Your task to perform on an android device: change the upload size in google photos Image 0: 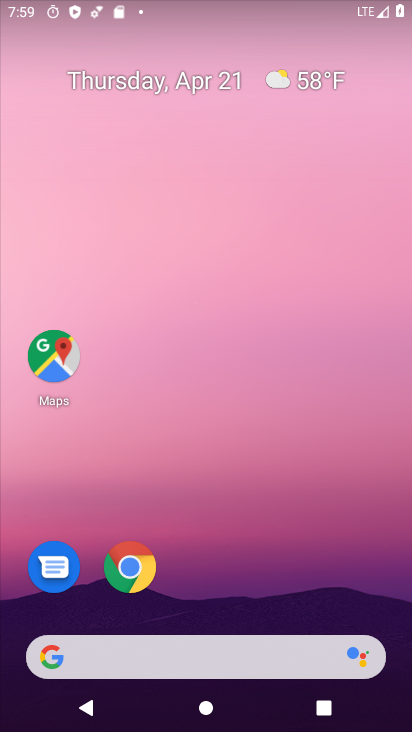
Step 0: drag from (228, 580) to (139, 0)
Your task to perform on an android device: change the upload size in google photos Image 1: 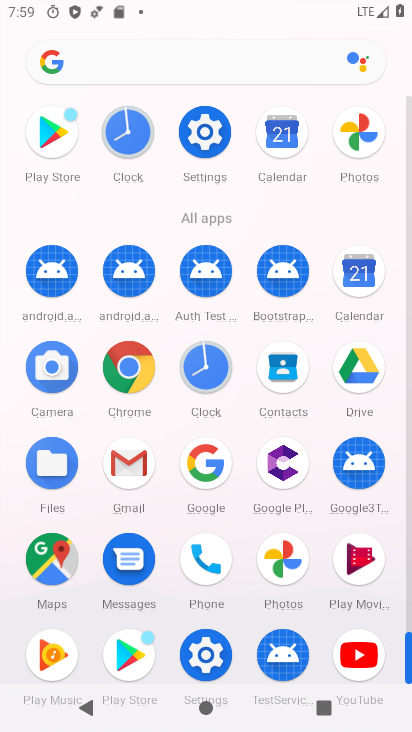
Step 1: click (359, 134)
Your task to perform on an android device: change the upload size in google photos Image 2: 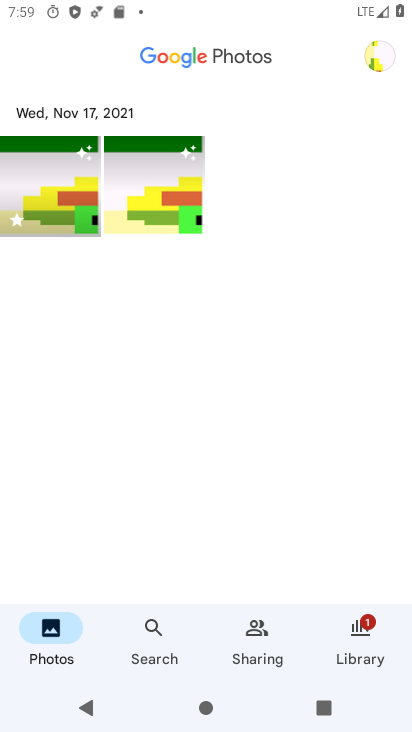
Step 2: click (378, 62)
Your task to perform on an android device: change the upload size in google photos Image 3: 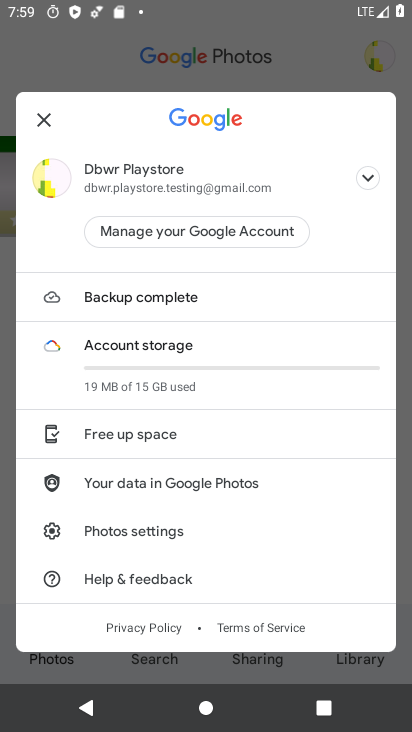
Step 3: click (163, 534)
Your task to perform on an android device: change the upload size in google photos Image 4: 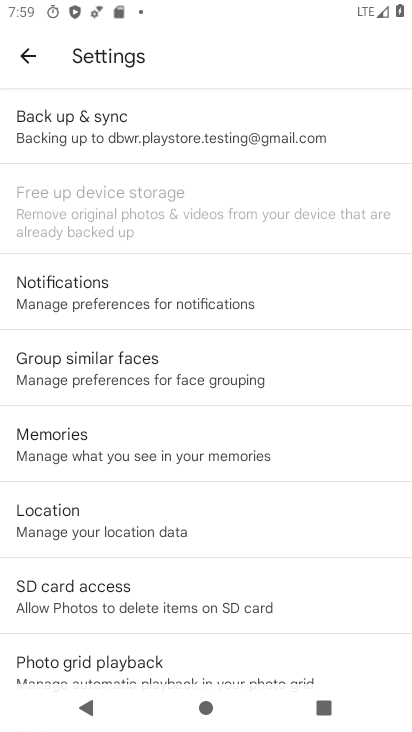
Step 4: click (112, 137)
Your task to perform on an android device: change the upload size in google photos Image 5: 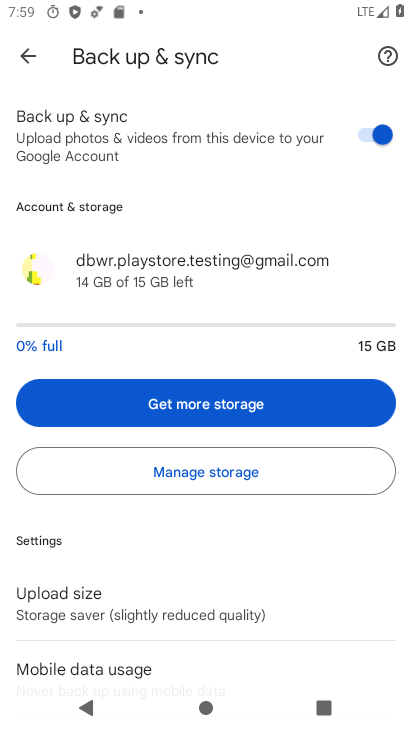
Step 5: click (89, 619)
Your task to perform on an android device: change the upload size in google photos Image 6: 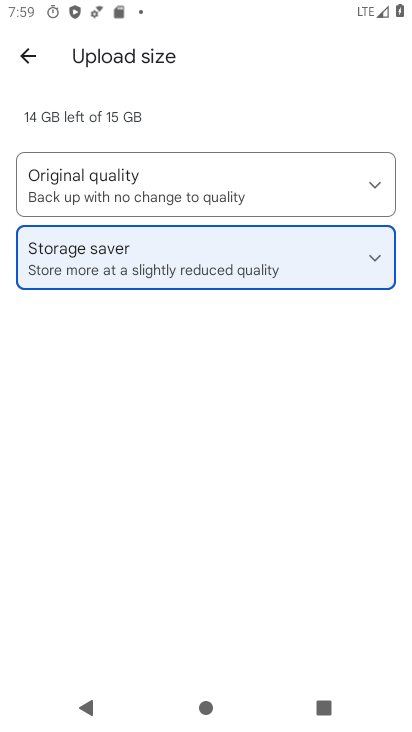
Step 6: click (233, 205)
Your task to perform on an android device: change the upload size in google photos Image 7: 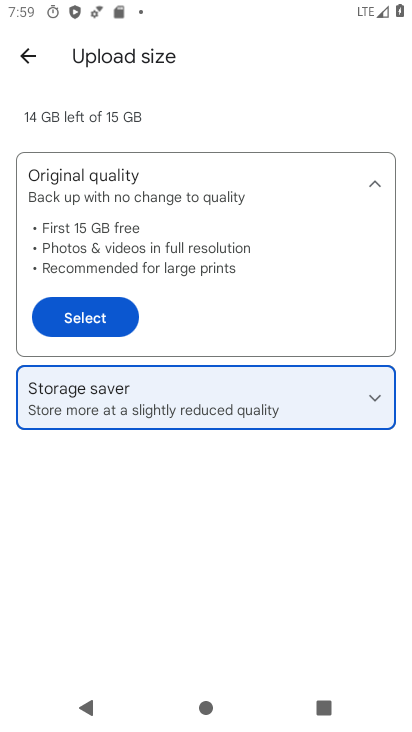
Step 7: click (104, 317)
Your task to perform on an android device: change the upload size in google photos Image 8: 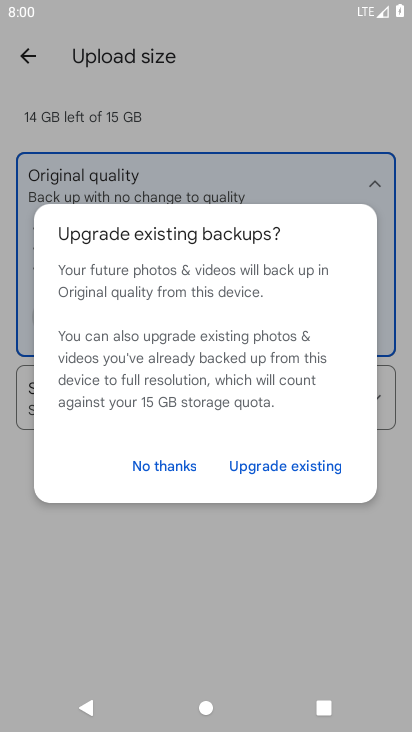
Step 8: click (179, 465)
Your task to perform on an android device: change the upload size in google photos Image 9: 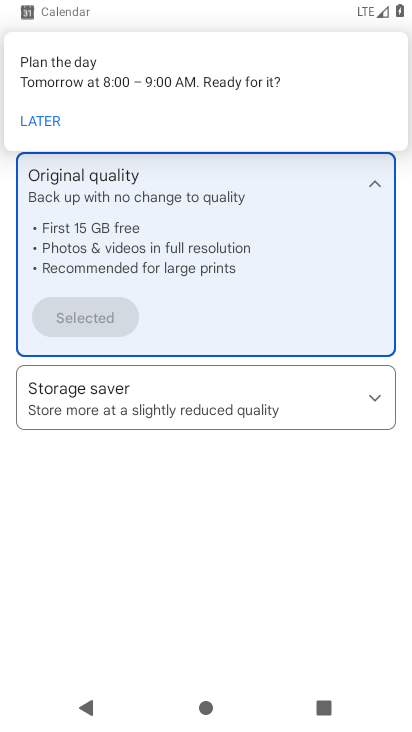
Step 9: click (35, 114)
Your task to perform on an android device: change the upload size in google photos Image 10: 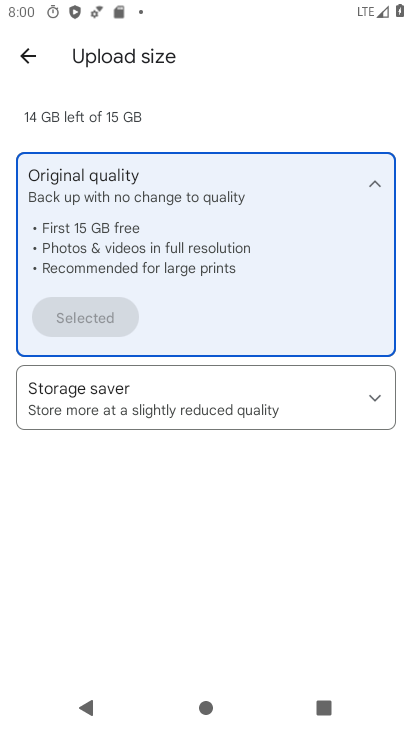
Step 10: task complete